Your task to perform on an android device: open the mobile data screen to see how much data has been used Image 0: 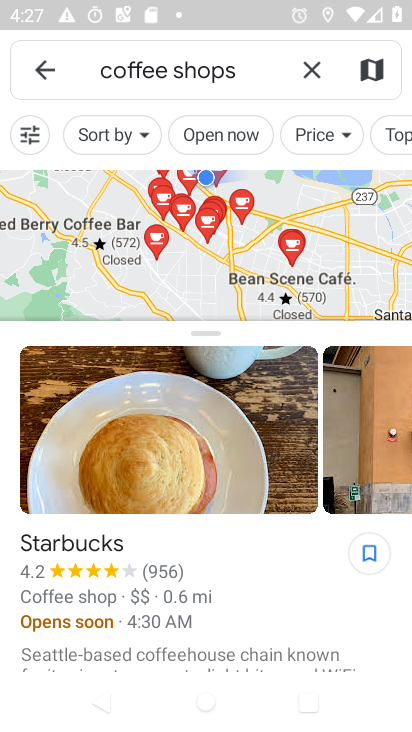
Step 0: press home button
Your task to perform on an android device: open the mobile data screen to see how much data has been used Image 1: 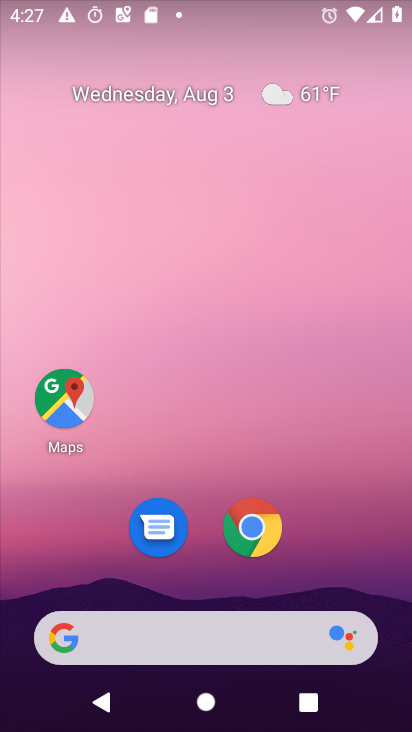
Step 1: drag from (386, 563) to (370, 8)
Your task to perform on an android device: open the mobile data screen to see how much data has been used Image 2: 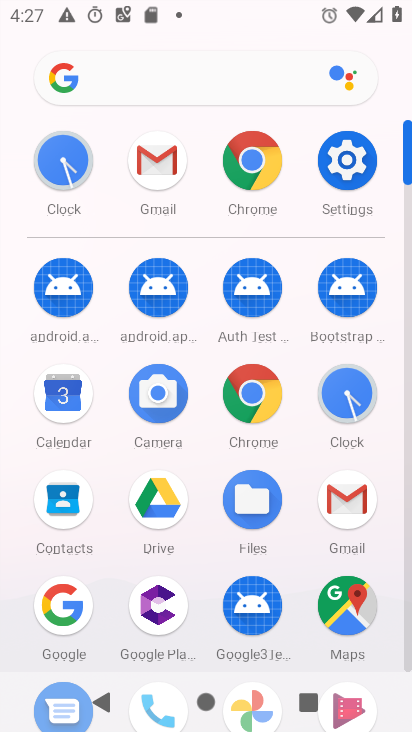
Step 2: click (342, 155)
Your task to perform on an android device: open the mobile data screen to see how much data has been used Image 3: 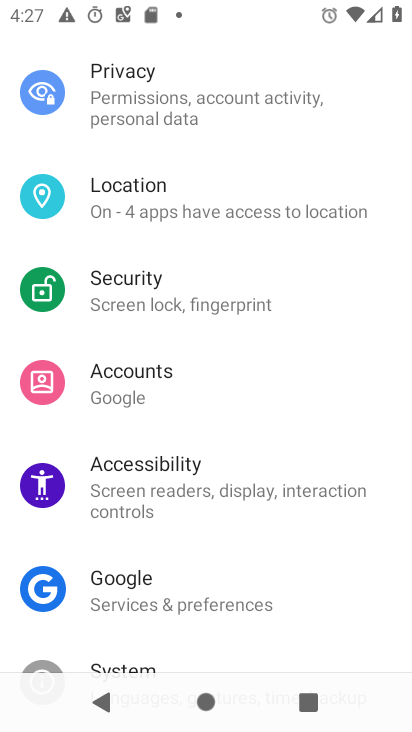
Step 3: drag from (267, 174) to (280, 585)
Your task to perform on an android device: open the mobile data screen to see how much data has been used Image 4: 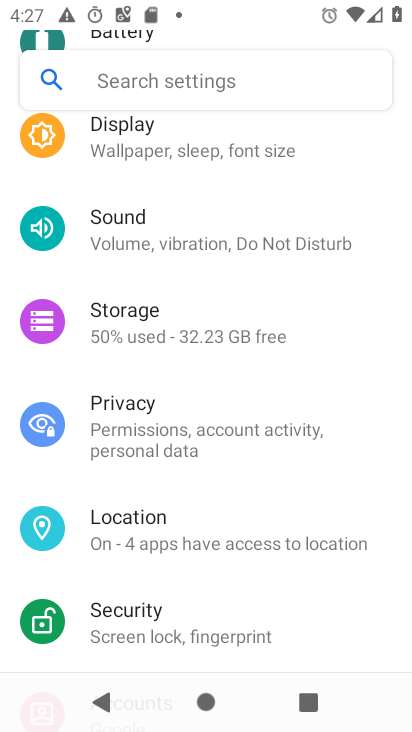
Step 4: drag from (259, 175) to (273, 615)
Your task to perform on an android device: open the mobile data screen to see how much data has been used Image 5: 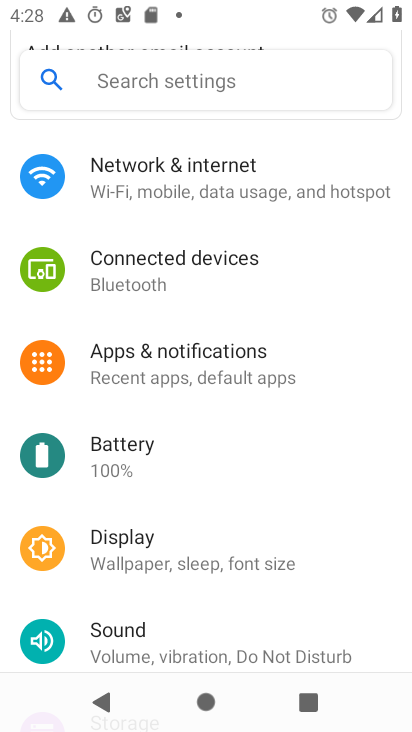
Step 5: click (139, 202)
Your task to perform on an android device: open the mobile data screen to see how much data has been used Image 6: 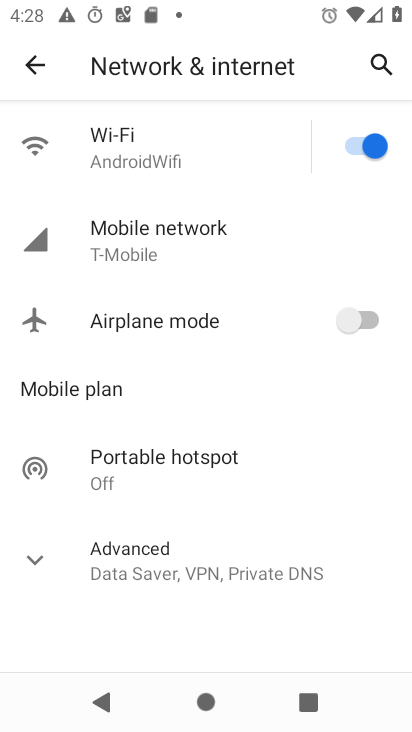
Step 6: click (139, 202)
Your task to perform on an android device: open the mobile data screen to see how much data has been used Image 7: 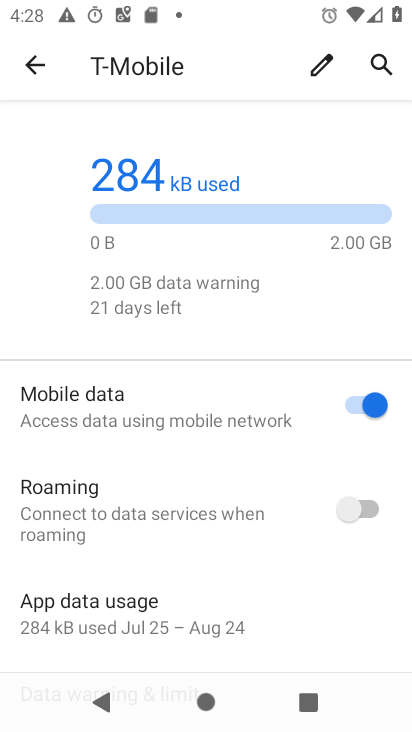
Step 7: task complete